Your task to perform on an android device: Go to Google maps Image 0: 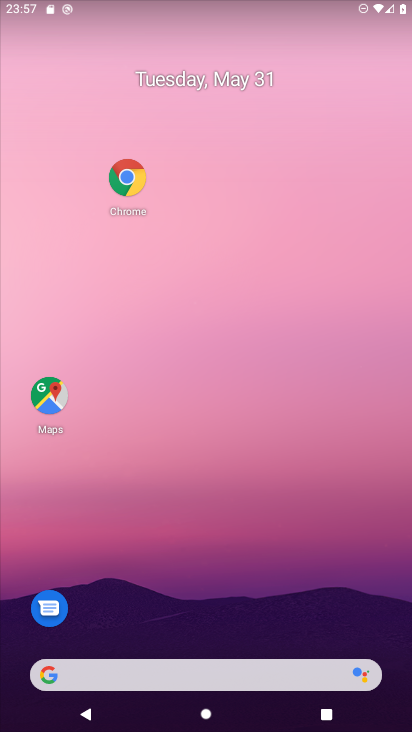
Step 0: press home button
Your task to perform on an android device: Go to Google maps Image 1: 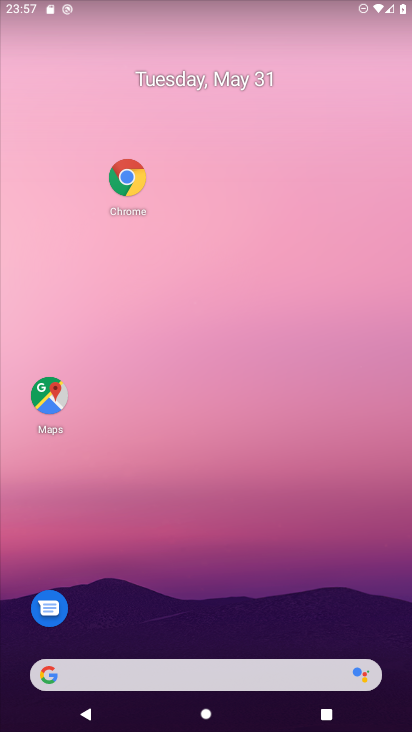
Step 1: click (40, 383)
Your task to perform on an android device: Go to Google maps Image 2: 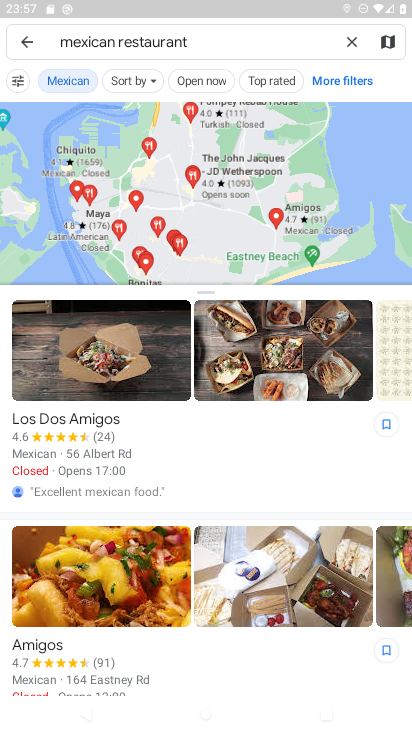
Step 2: task complete